Your task to perform on an android device: Open Reddit.com Image 0: 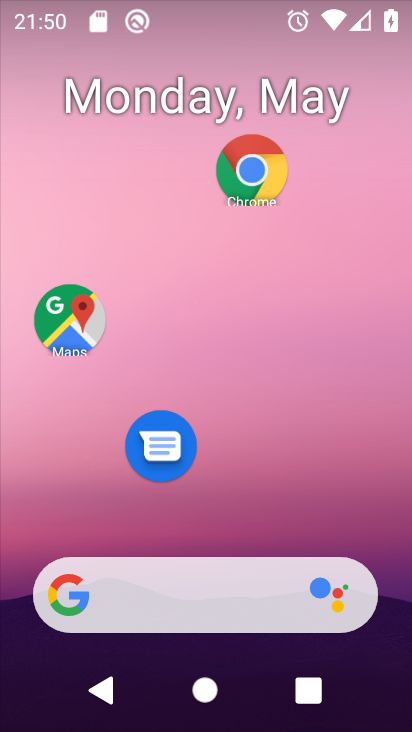
Step 0: press home button
Your task to perform on an android device: Open Reddit.com Image 1: 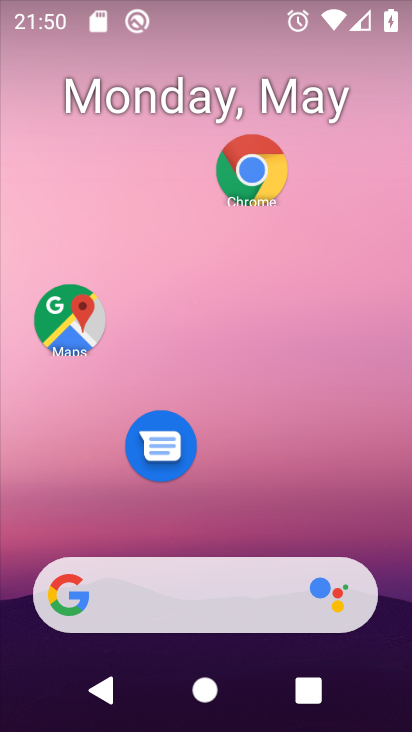
Step 1: click (248, 161)
Your task to perform on an android device: Open Reddit.com Image 2: 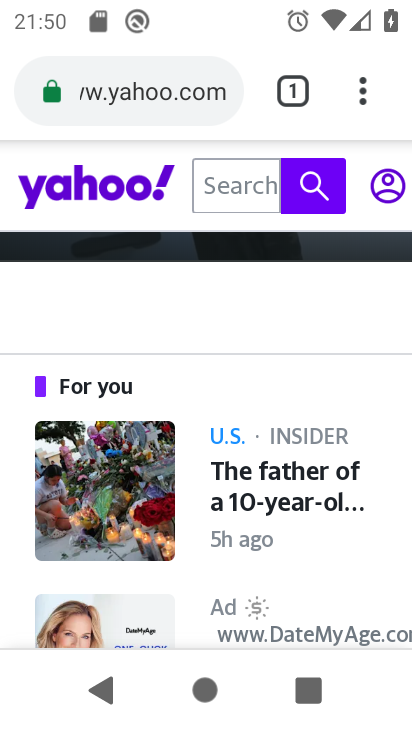
Step 2: click (291, 81)
Your task to perform on an android device: Open Reddit.com Image 3: 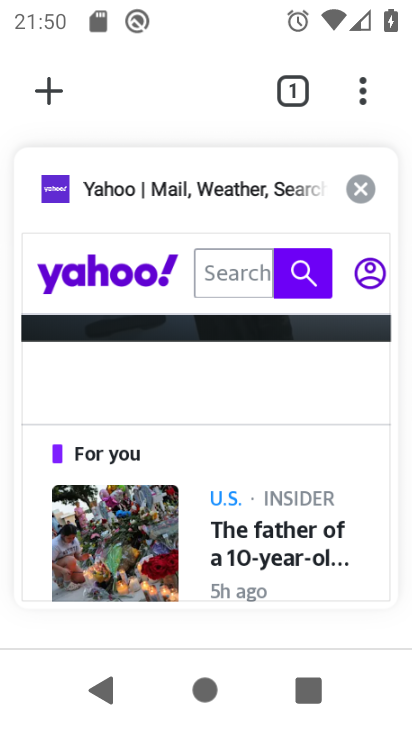
Step 3: click (362, 187)
Your task to perform on an android device: Open Reddit.com Image 4: 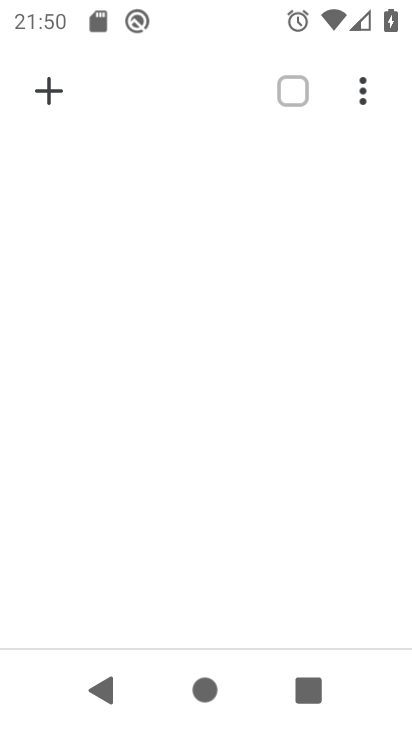
Step 4: click (59, 94)
Your task to perform on an android device: Open Reddit.com Image 5: 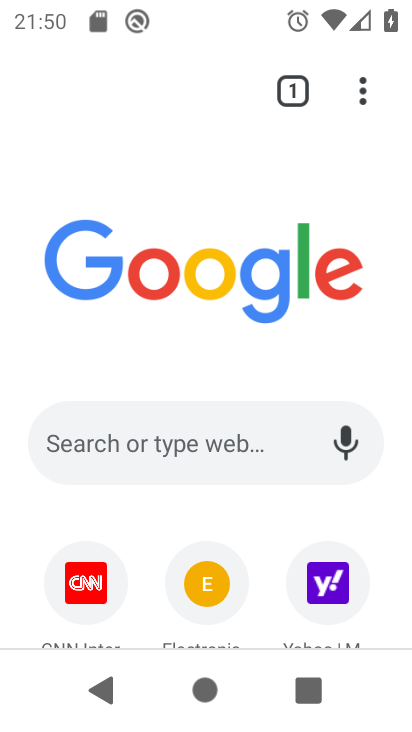
Step 5: click (148, 436)
Your task to perform on an android device: Open Reddit.com Image 6: 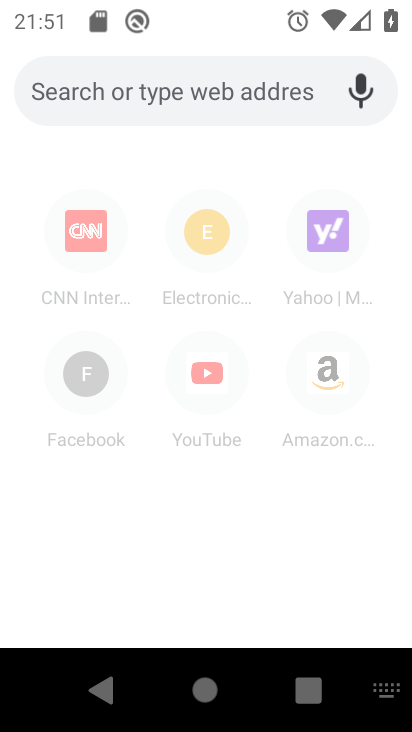
Step 6: type "reddit"
Your task to perform on an android device: Open Reddit.com Image 7: 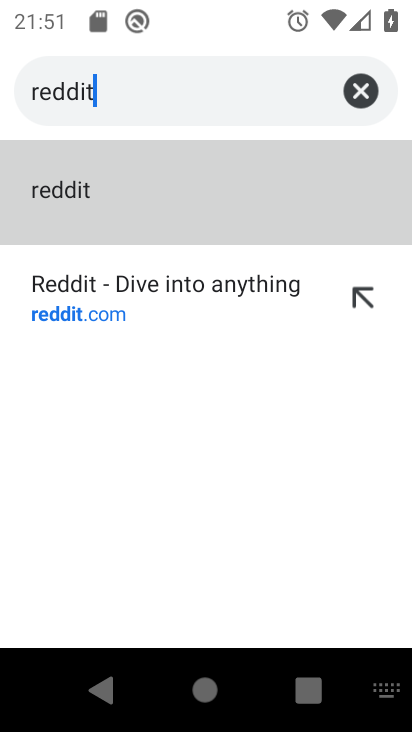
Step 7: click (162, 293)
Your task to perform on an android device: Open Reddit.com Image 8: 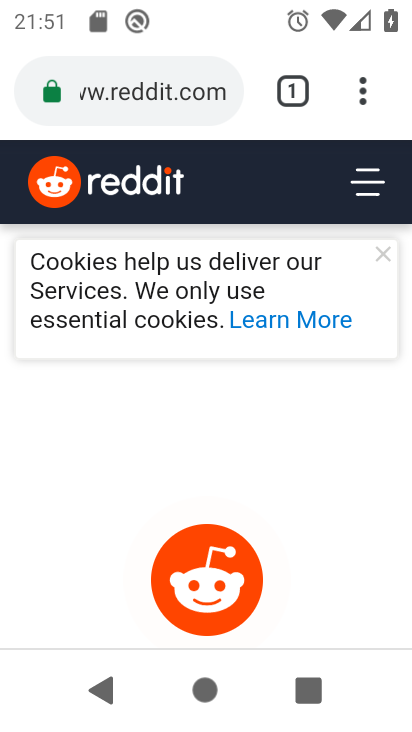
Step 8: task complete